Your task to perform on an android device: Go to Reddit.com Image 0: 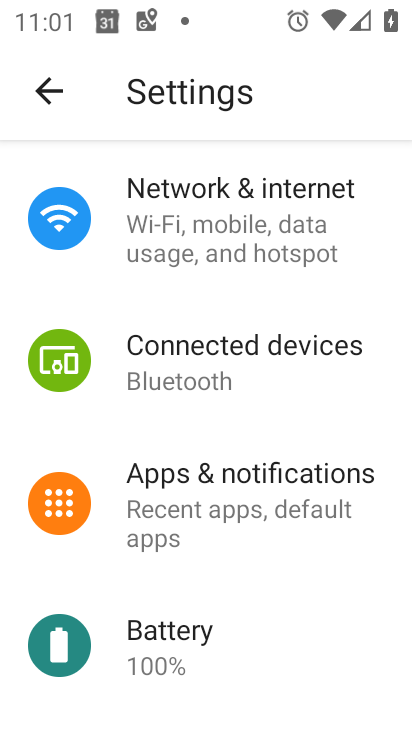
Step 0: press home button
Your task to perform on an android device: Go to Reddit.com Image 1: 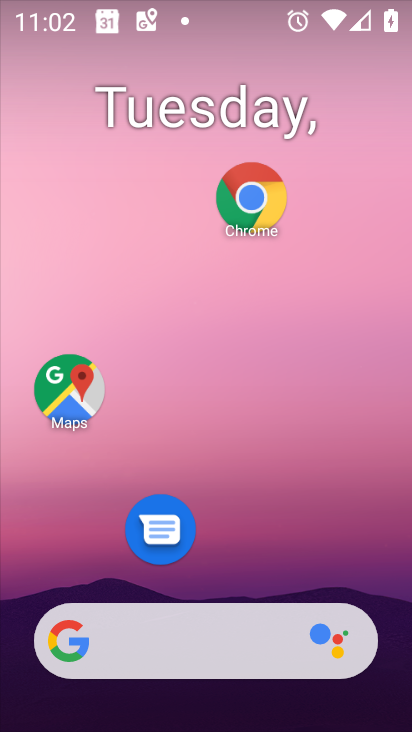
Step 1: drag from (331, 546) to (309, 200)
Your task to perform on an android device: Go to Reddit.com Image 2: 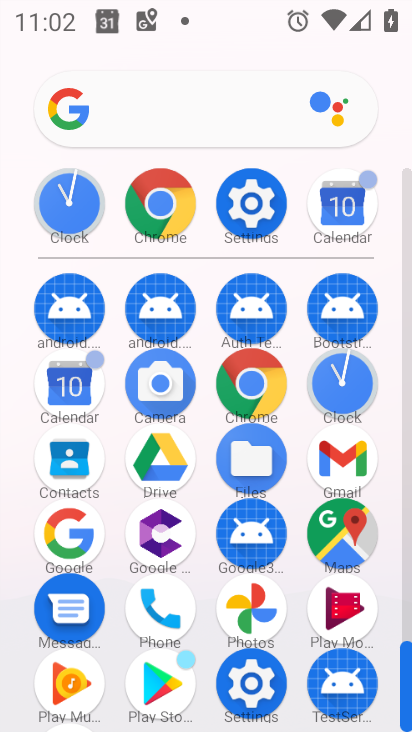
Step 2: click (166, 232)
Your task to perform on an android device: Go to Reddit.com Image 3: 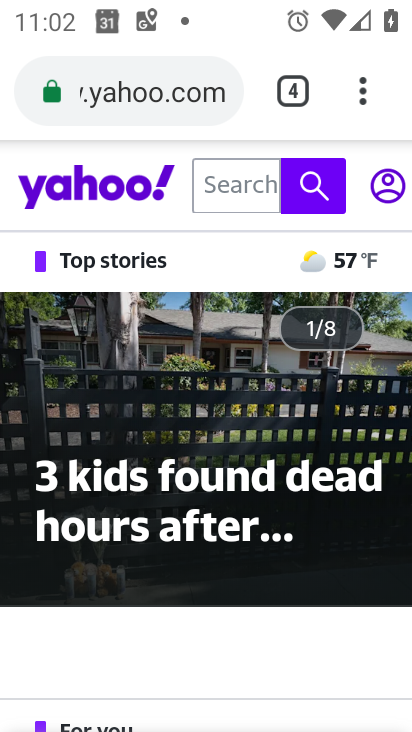
Step 3: click (204, 85)
Your task to perform on an android device: Go to Reddit.com Image 4: 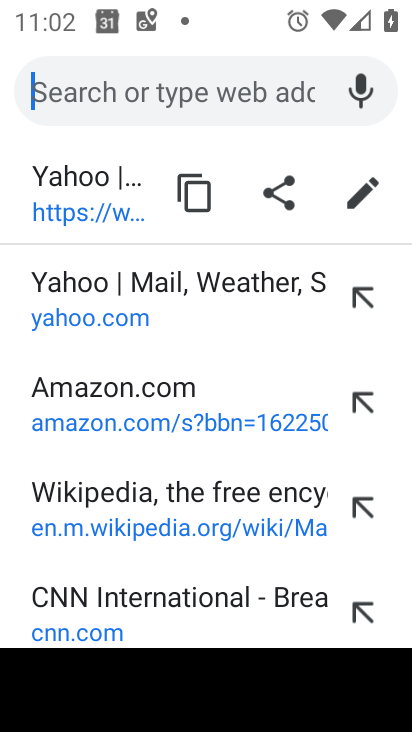
Step 4: type "reddit"
Your task to perform on an android device: Go to Reddit.com Image 5: 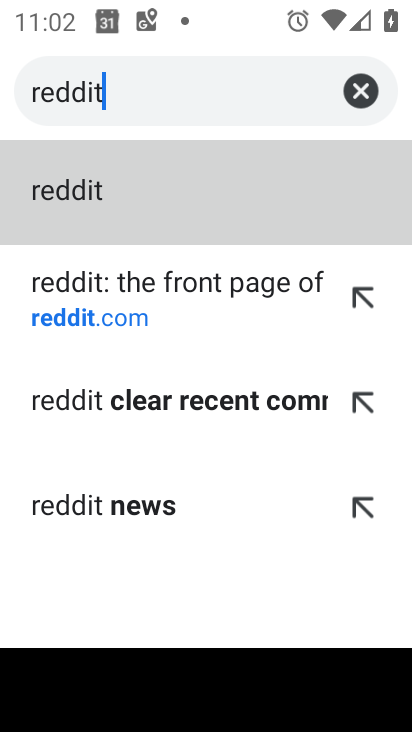
Step 5: click (116, 215)
Your task to perform on an android device: Go to Reddit.com Image 6: 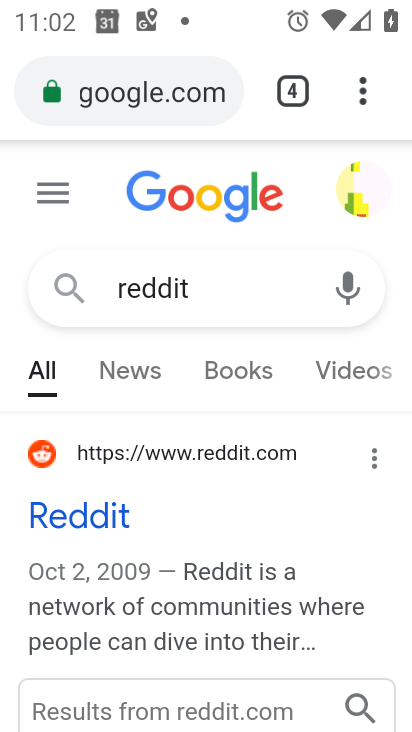
Step 6: click (91, 533)
Your task to perform on an android device: Go to Reddit.com Image 7: 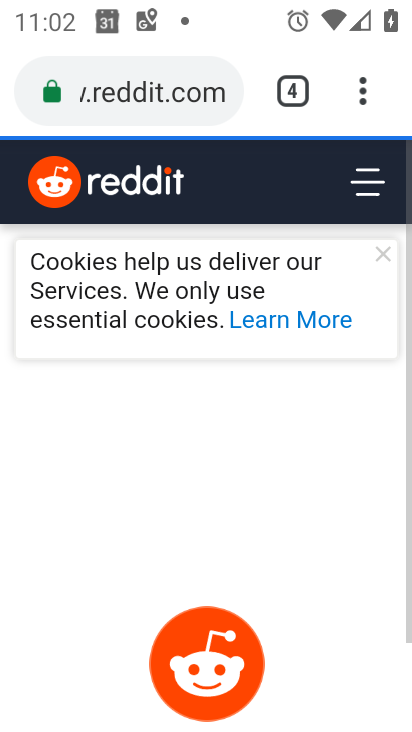
Step 7: task complete